Your task to perform on an android device: turn off location history Image 0: 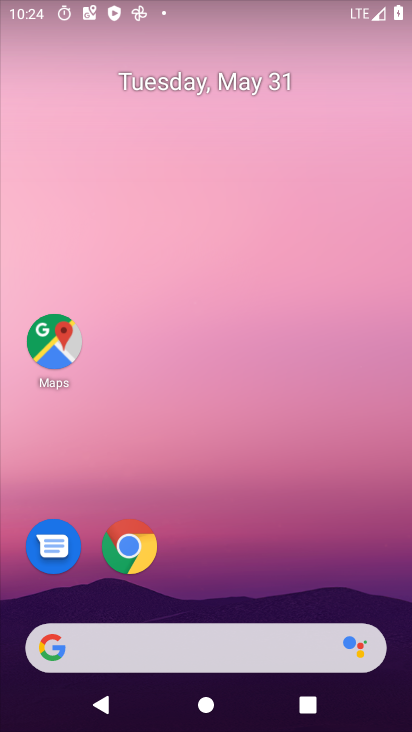
Step 0: drag from (202, 549) to (267, 12)
Your task to perform on an android device: turn off location history Image 1: 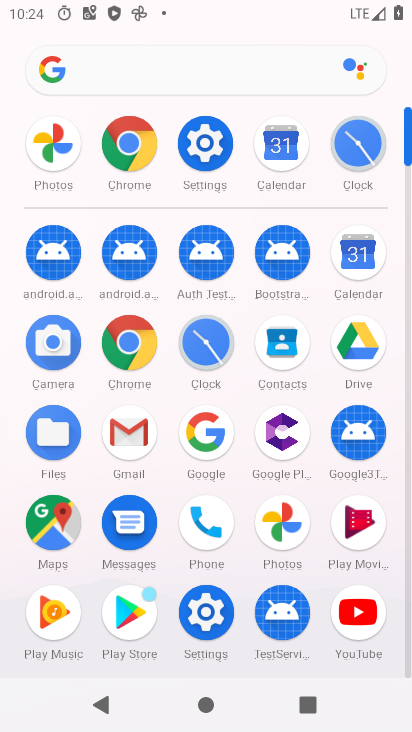
Step 1: click (211, 140)
Your task to perform on an android device: turn off location history Image 2: 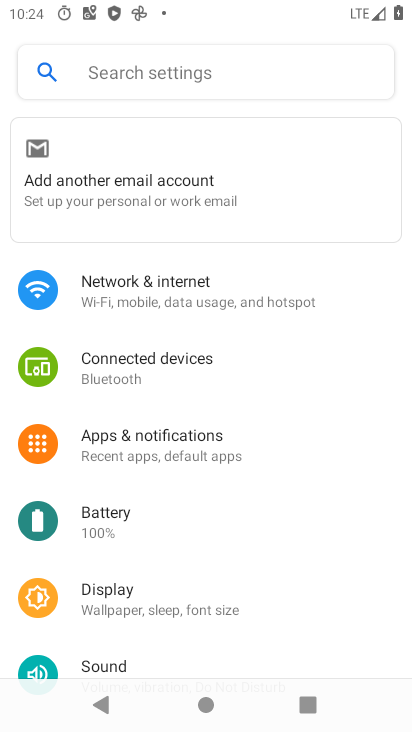
Step 2: drag from (152, 597) to (201, 226)
Your task to perform on an android device: turn off location history Image 3: 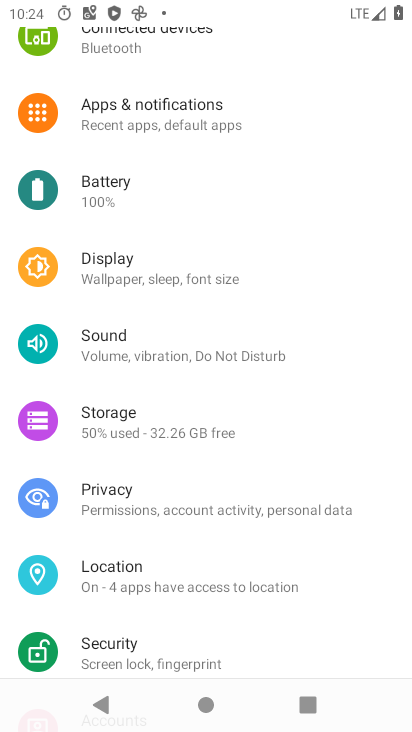
Step 3: click (167, 578)
Your task to perform on an android device: turn off location history Image 4: 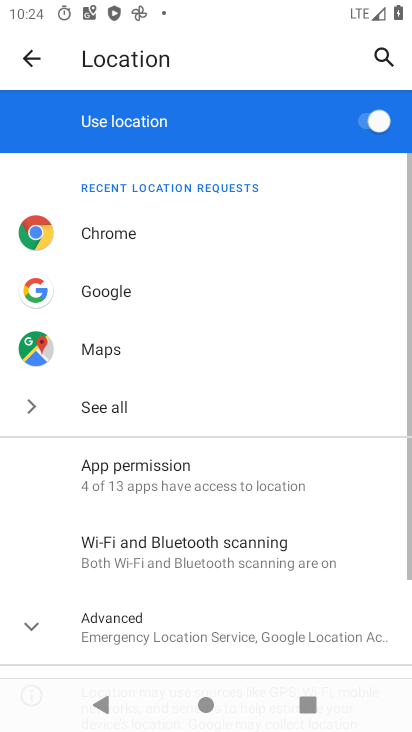
Step 4: click (189, 632)
Your task to perform on an android device: turn off location history Image 5: 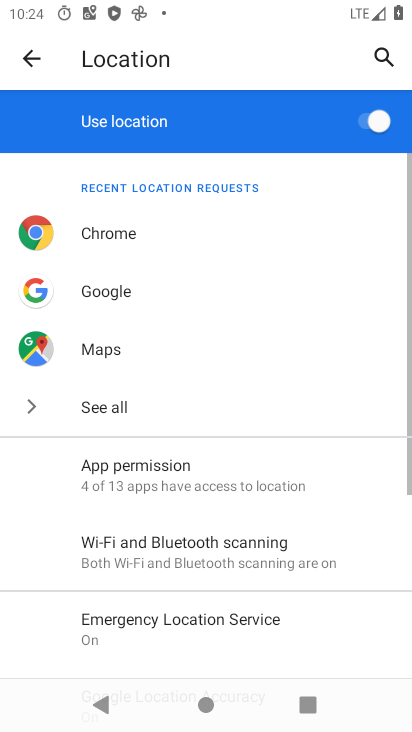
Step 5: task complete